Your task to perform on an android device: How much does a 2 bedroom apartment rent for in Philadelphia? Image 0: 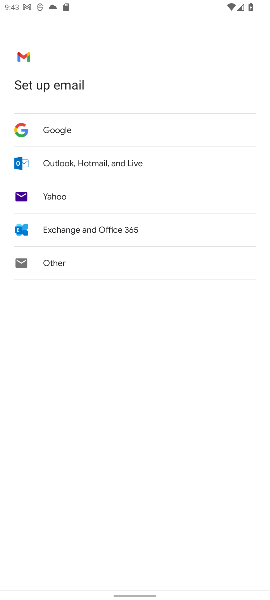
Step 0: press home button
Your task to perform on an android device: How much does a 2 bedroom apartment rent for in Philadelphia? Image 1: 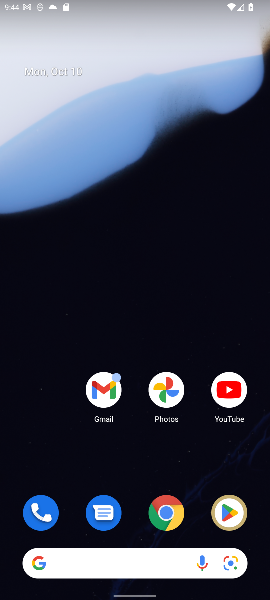
Step 1: click (160, 559)
Your task to perform on an android device: How much does a 2 bedroom apartment rent for in Philadelphia? Image 2: 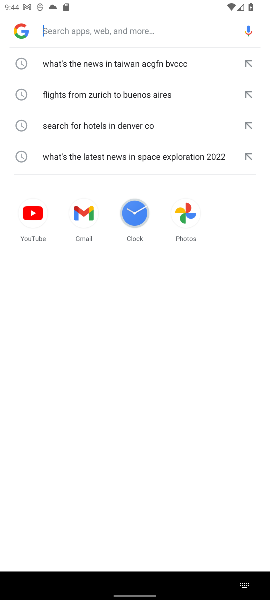
Step 2: type "How much does a 2 bedroom apartment rent for in Philadelphia?"
Your task to perform on an android device: How much does a 2 bedroom apartment rent for in Philadelphia? Image 3: 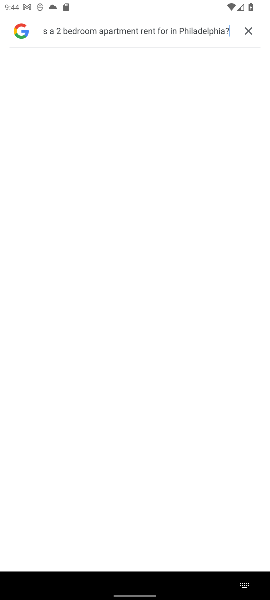
Step 3: press home button
Your task to perform on an android device: How much does a 2 bedroom apartment rent for in Philadelphia? Image 4: 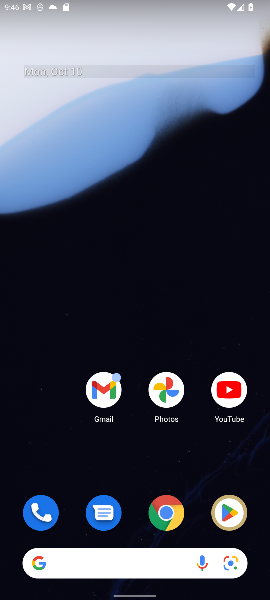
Step 4: click (103, 561)
Your task to perform on an android device: How much does a 2 bedroom apartment rent for in Philadelphia? Image 5: 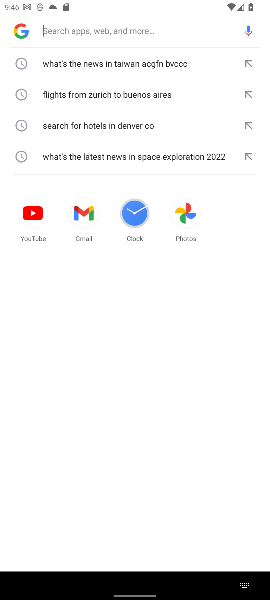
Step 5: type "How much does a 2 bedroom apartment rent for in Philadelphia?"
Your task to perform on an android device: How much does a 2 bedroom apartment rent for in Philadelphia? Image 6: 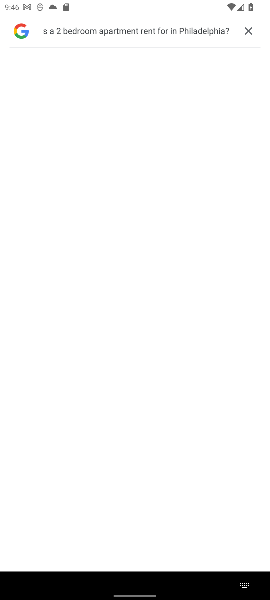
Step 6: press home button
Your task to perform on an android device: How much does a 2 bedroom apartment rent for in Philadelphia? Image 7: 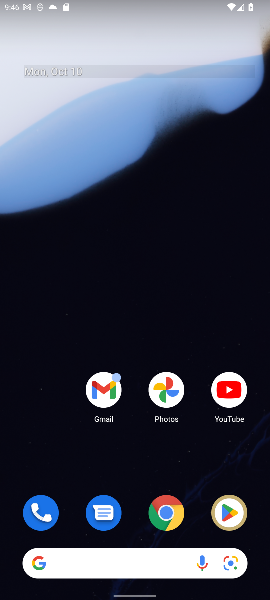
Step 7: click (115, 554)
Your task to perform on an android device: How much does a 2 bedroom apartment rent for in Philadelphia? Image 8: 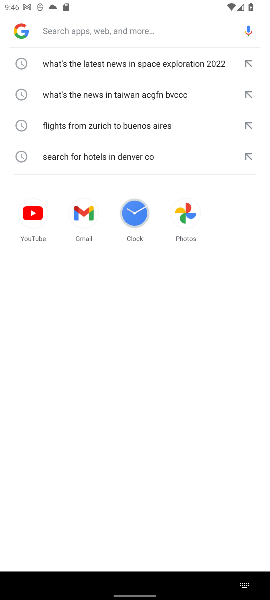
Step 8: type "How much does a 2 bedroom apartment rent for in Philadelphia?"
Your task to perform on an android device: How much does a 2 bedroom apartment rent for in Philadelphia? Image 9: 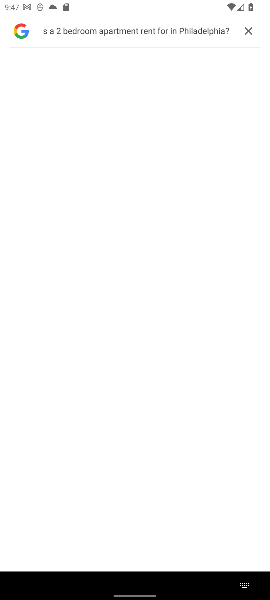
Step 9: task complete